Your task to perform on an android device: Open display settings Image 0: 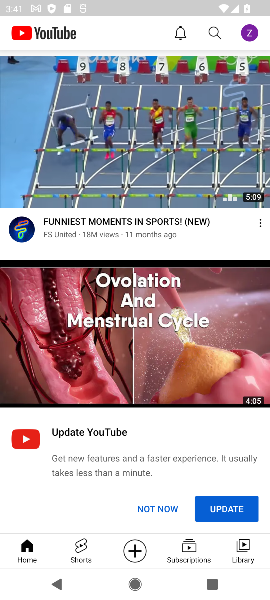
Step 0: click (109, 479)
Your task to perform on an android device: Open display settings Image 1: 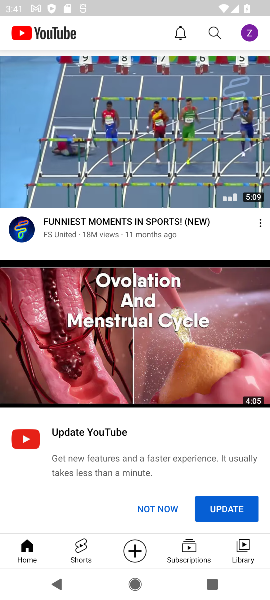
Step 1: press home button
Your task to perform on an android device: Open display settings Image 2: 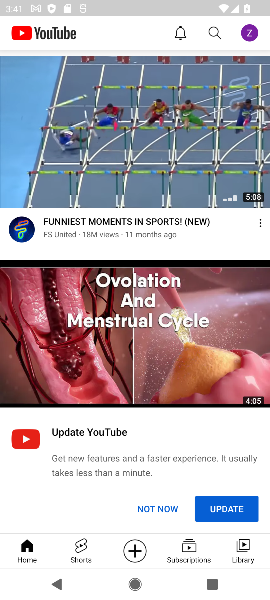
Step 2: drag from (148, 380) to (158, 116)
Your task to perform on an android device: Open display settings Image 3: 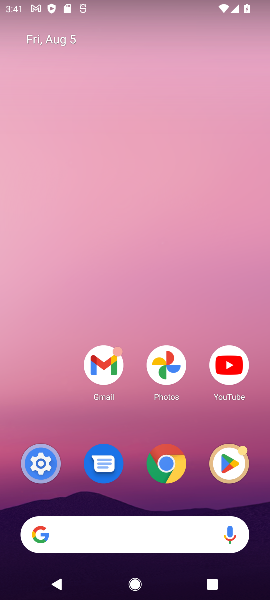
Step 3: click (28, 458)
Your task to perform on an android device: Open display settings Image 4: 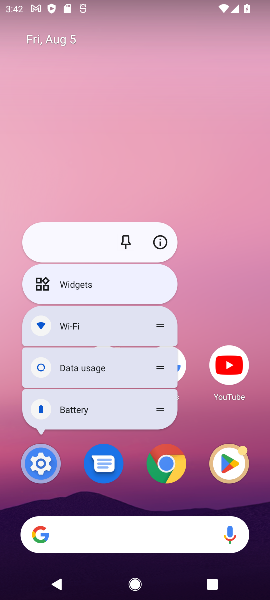
Step 4: click (159, 243)
Your task to perform on an android device: Open display settings Image 5: 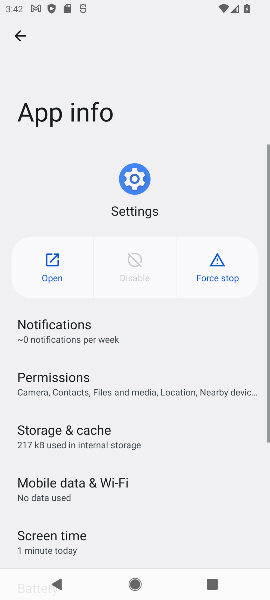
Step 5: click (52, 277)
Your task to perform on an android device: Open display settings Image 6: 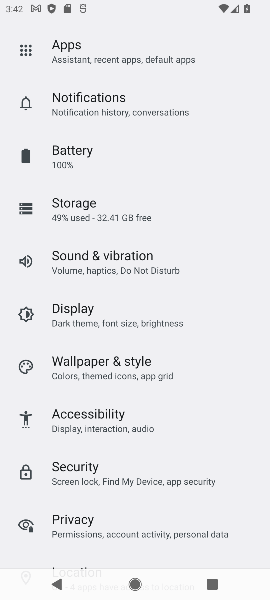
Step 6: drag from (128, 100) to (135, 590)
Your task to perform on an android device: Open display settings Image 7: 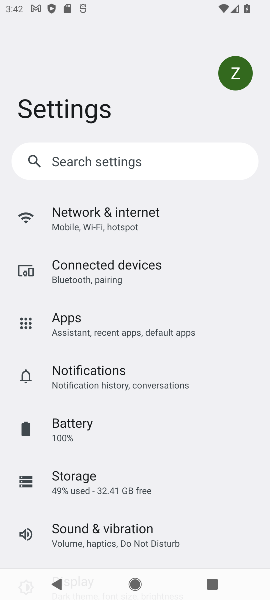
Step 7: drag from (113, 509) to (145, 290)
Your task to perform on an android device: Open display settings Image 8: 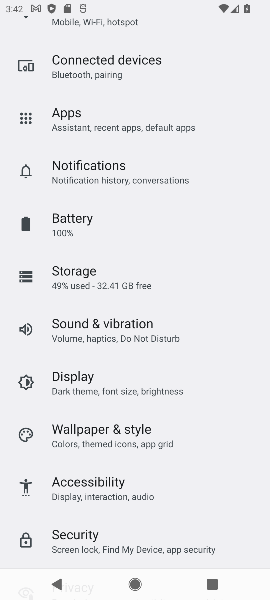
Step 8: click (111, 379)
Your task to perform on an android device: Open display settings Image 9: 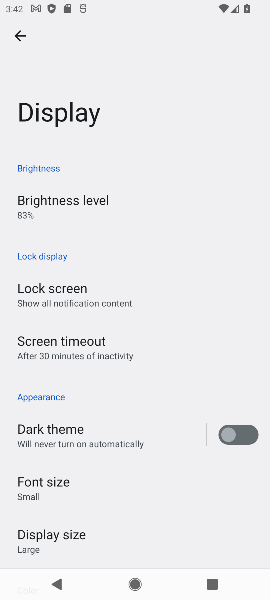
Step 9: task complete